Your task to perform on an android device: Open Google Chrome Image 0: 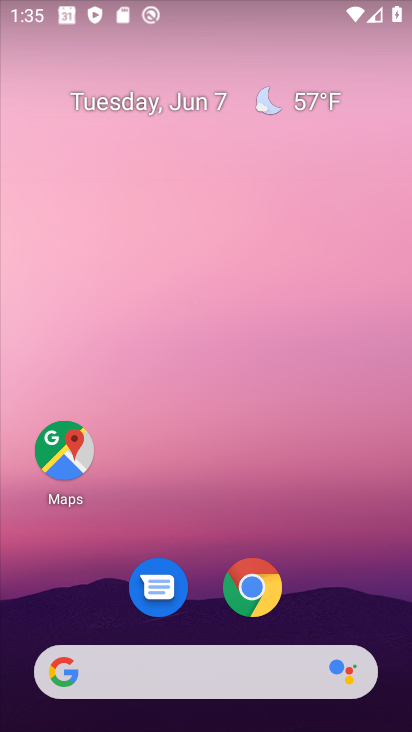
Step 0: click (243, 602)
Your task to perform on an android device: Open Google Chrome Image 1: 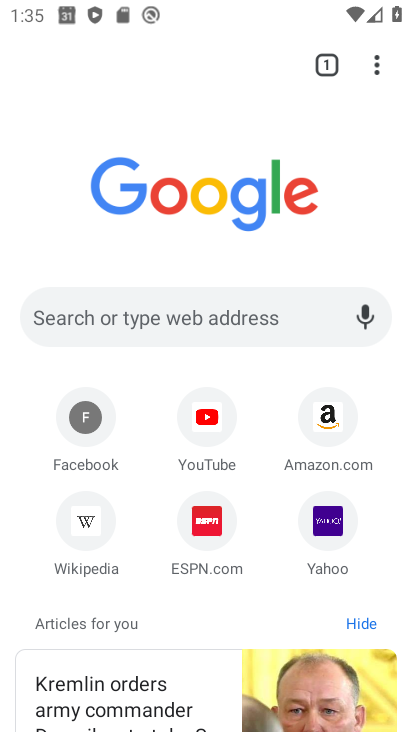
Step 1: task complete